Your task to perform on an android device: Check the price on the Dyson V11 Motorhead on Best Buy Image 0: 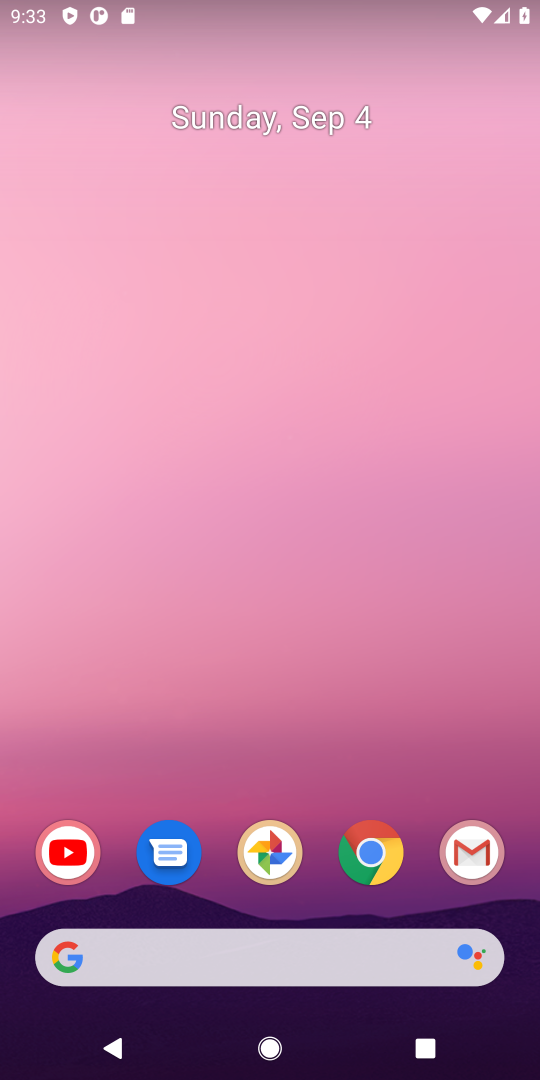
Step 0: drag from (405, 799) to (170, 8)
Your task to perform on an android device: Check the price on the Dyson V11 Motorhead on Best Buy Image 1: 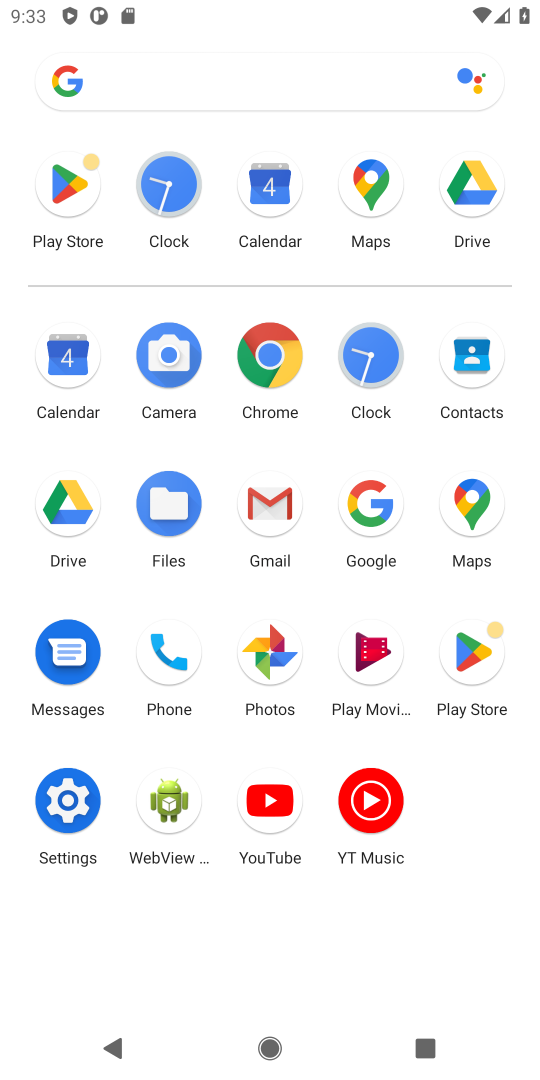
Step 1: click (372, 502)
Your task to perform on an android device: Check the price on the Dyson V11 Motorhead on Best Buy Image 2: 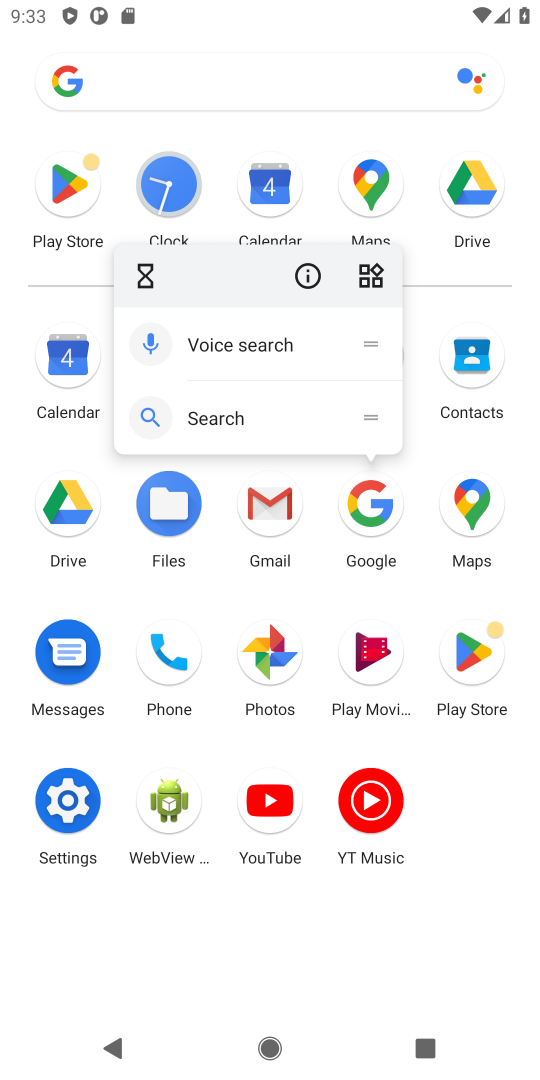
Step 2: click (372, 502)
Your task to perform on an android device: Check the price on the Dyson V11 Motorhead on Best Buy Image 3: 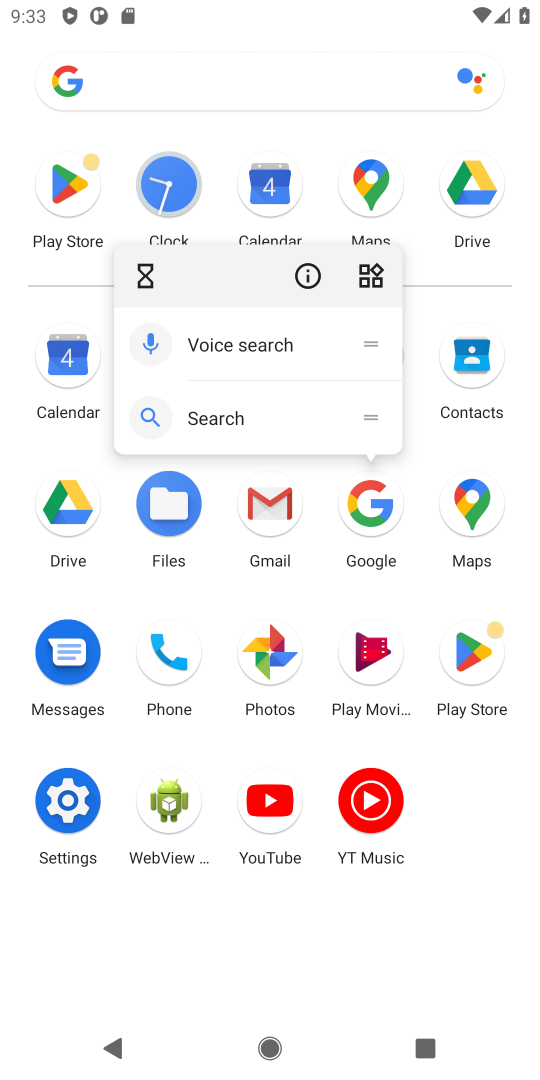
Step 3: click (372, 502)
Your task to perform on an android device: Check the price on the Dyson V11 Motorhead on Best Buy Image 4: 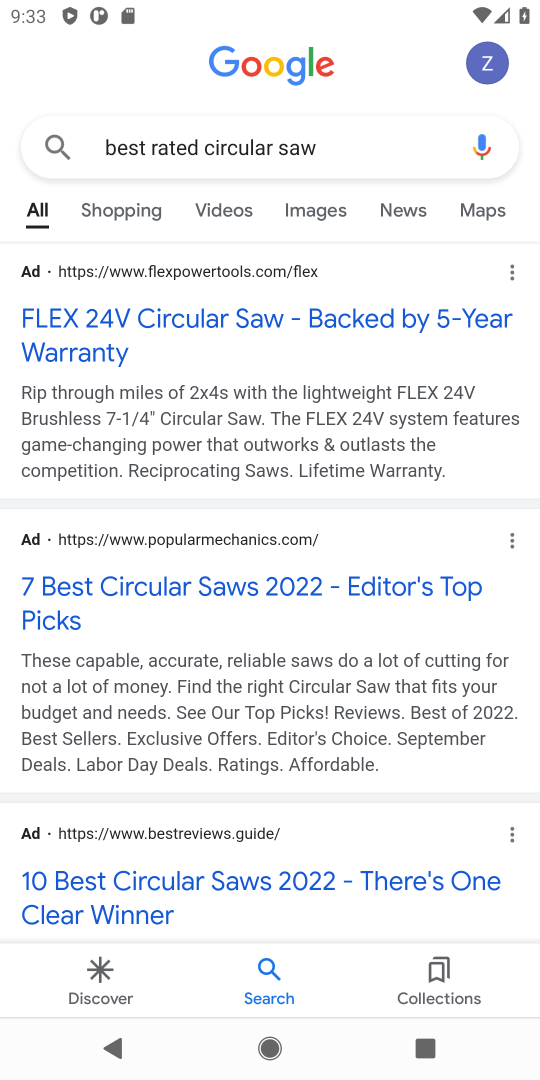
Step 4: press back button
Your task to perform on an android device: Check the price on the Dyson V11 Motorhead on Best Buy Image 5: 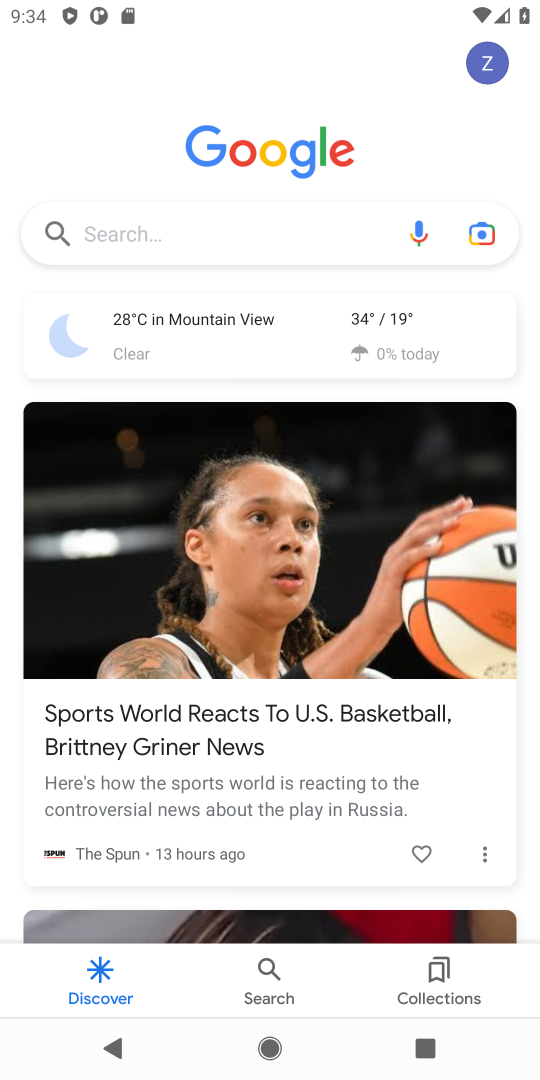
Step 5: type "Dyson V11 Motorhead on Best Buy"
Your task to perform on an android device: Check the price on the Dyson V11 Motorhead on Best Buy Image 6: 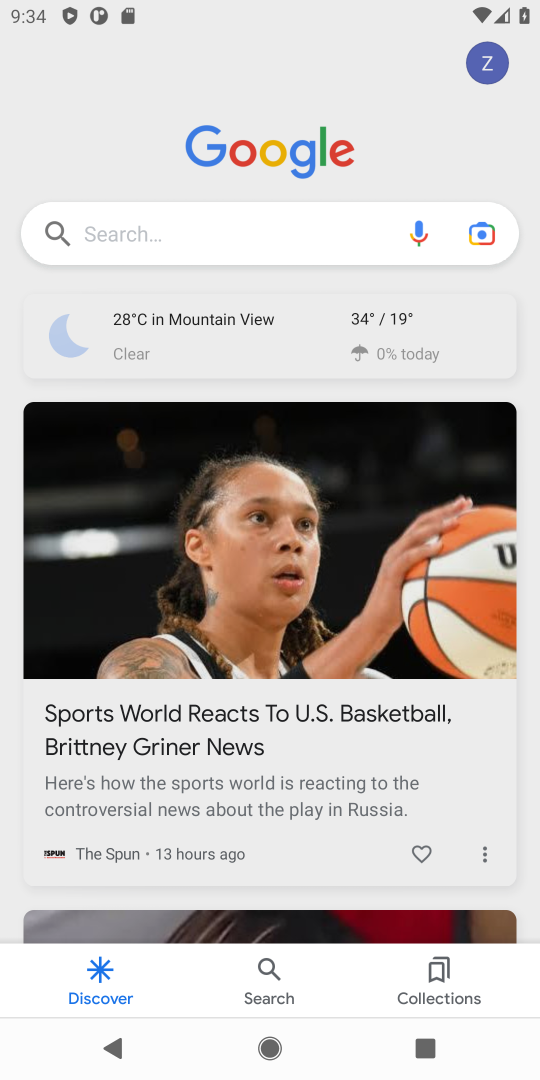
Step 6: click (235, 232)
Your task to perform on an android device: Check the price on the Dyson V11 Motorhead on Best Buy Image 7: 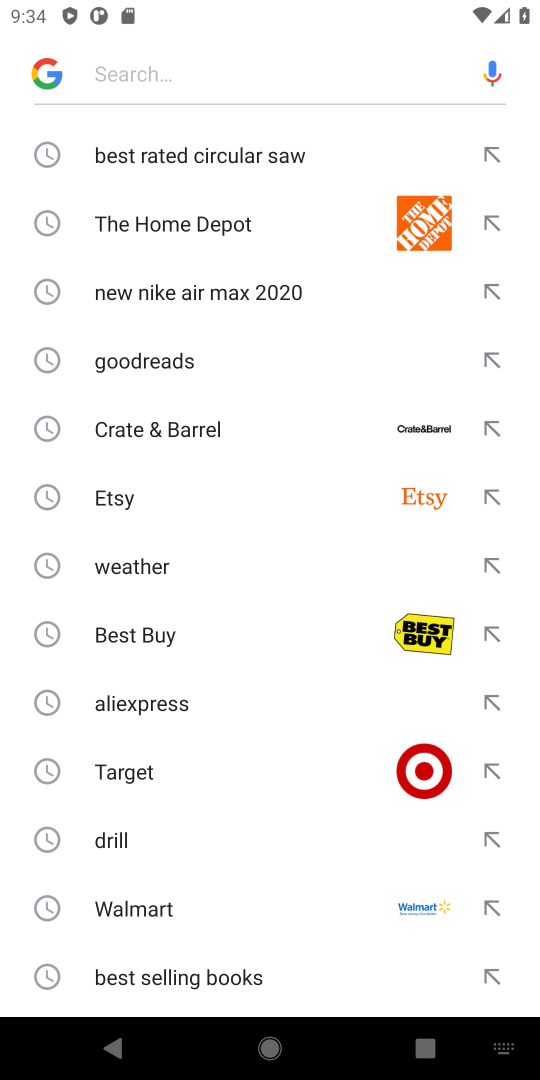
Step 7: type "Dyson V11 Motorhead on Best Buy"
Your task to perform on an android device: Check the price on the Dyson V11 Motorhead on Best Buy Image 8: 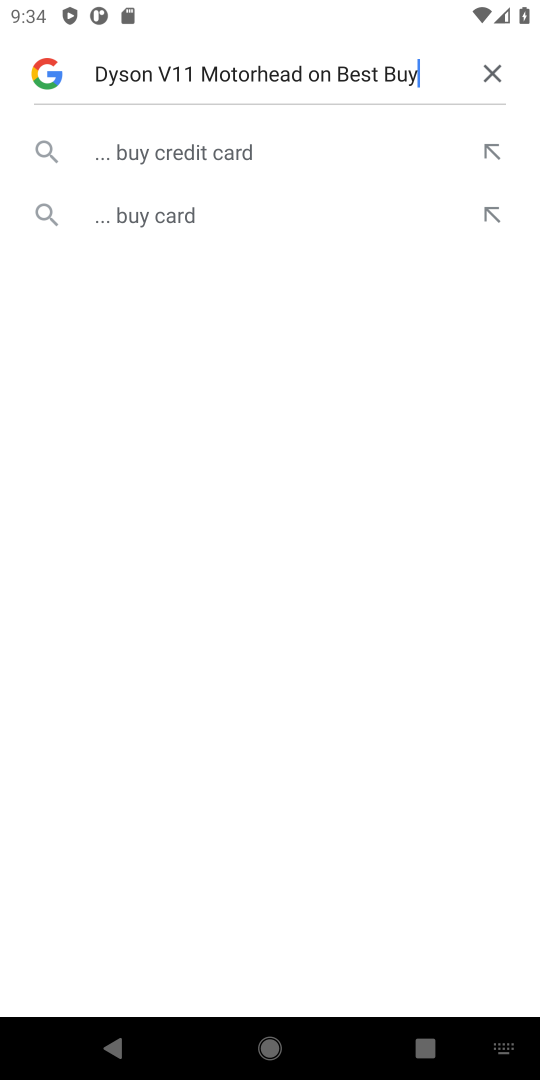
Step 8: click (152, 153)
Your task to perform on an android device: Check the price on the Dyson V11 Motorhead on Best Buy Image 9: 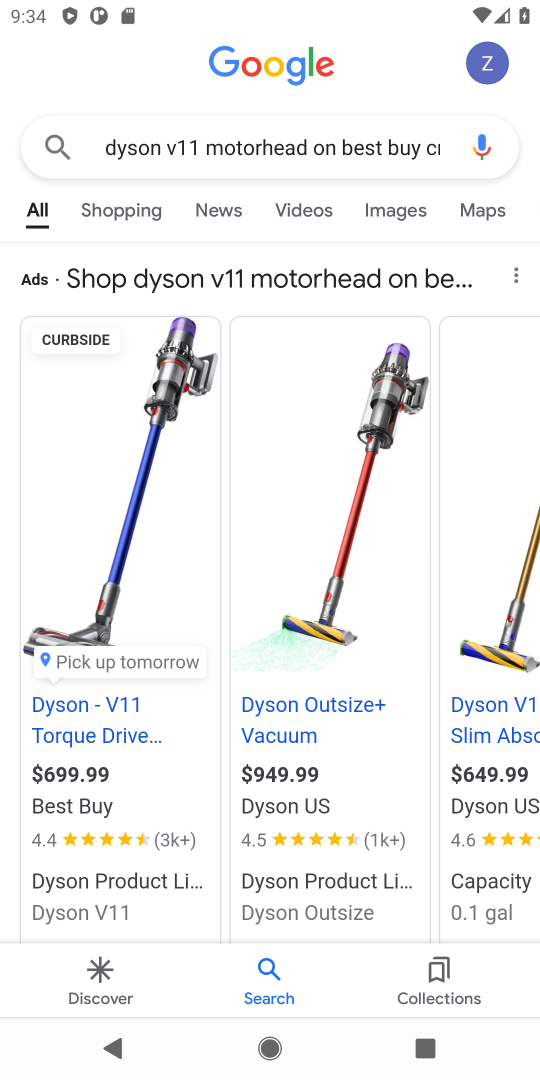
Step 9: task complete